Your task to perform on an android device: turn off smart reply in the gmail app Image 0: 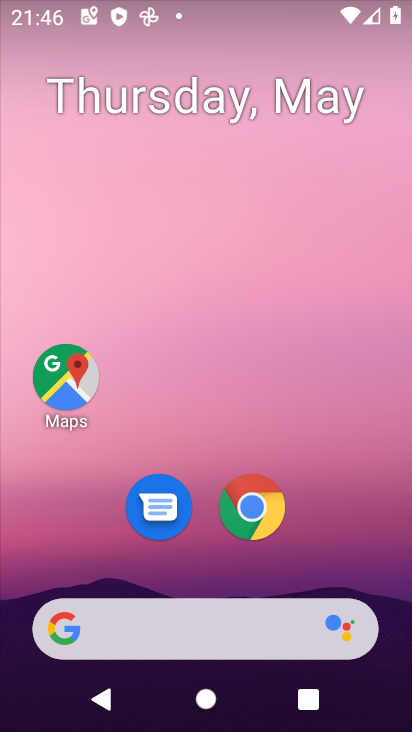
Step 0: drag from (266, 675) to (329, 247)
Your task to perform on an android device: turn off smart reply in the gmail app Image 1: 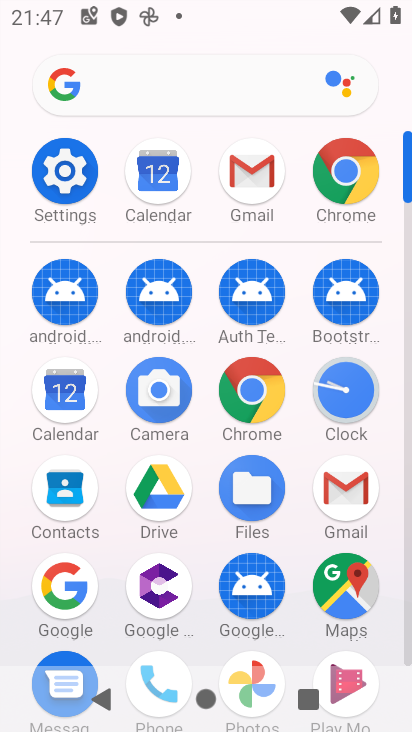
Step 1: click (247, 175)
Your task to perform on an android device: turn off smart reply in the gmail app Image 2: 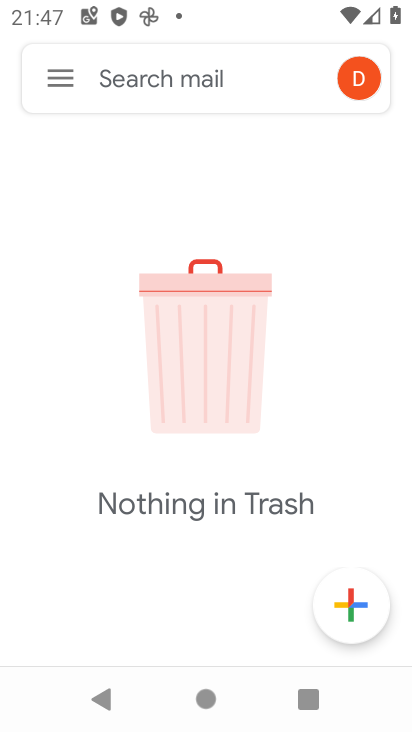
Step 2: click (69, 88)
Your task to perform on an android device: turn off smart reply in the gmail app Image 3: 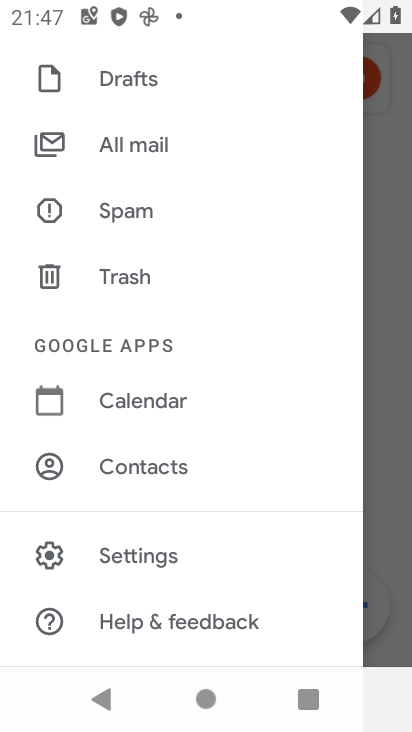
Step 3: click (152, 544)
Your task to perform on an android device: turn off smart reply in the gmail app Image 4: 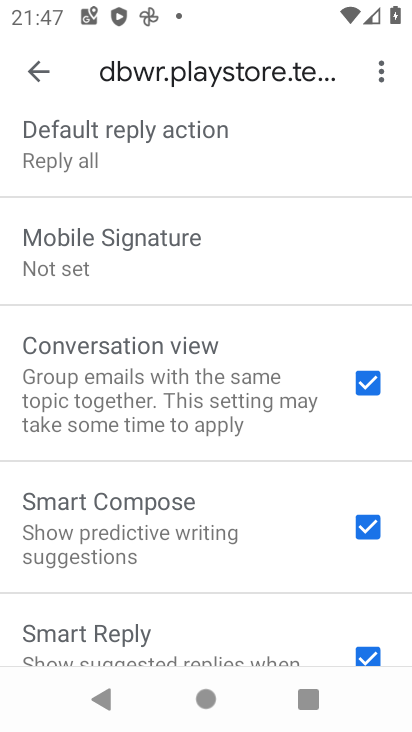
Step 4: drag from (346, 621) to (373, 514)
Your task to perform on an android device: turn off smart reply in the gmail app Image 5: 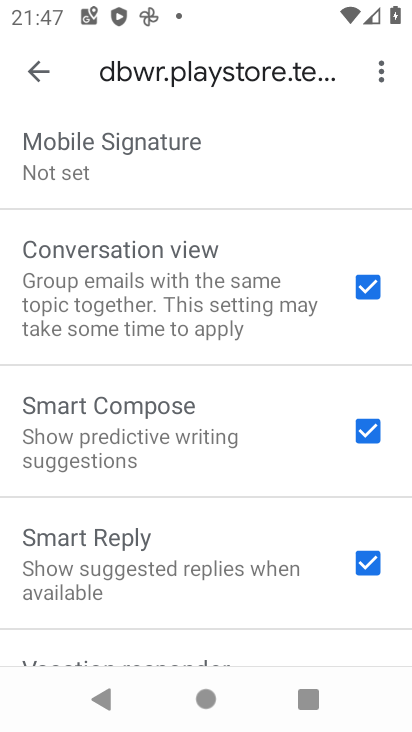
Step 5: click (369, 564)
Your task to perform on an android device: turn off smart reply in the gmail app Image 6: 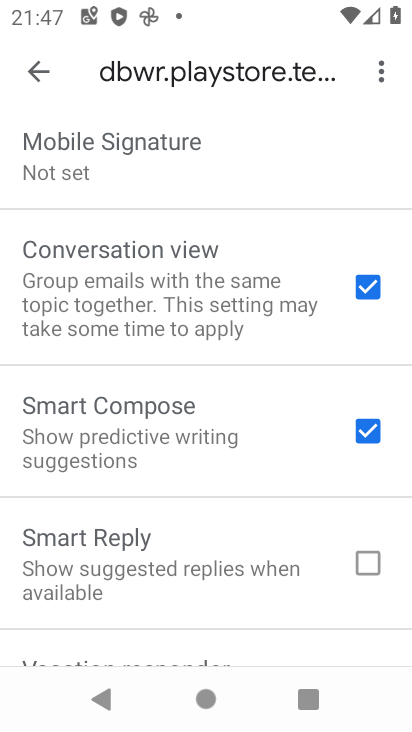
Step 6: task complete